Your task to perform on an android device: clear history in the chrome app Image 0: 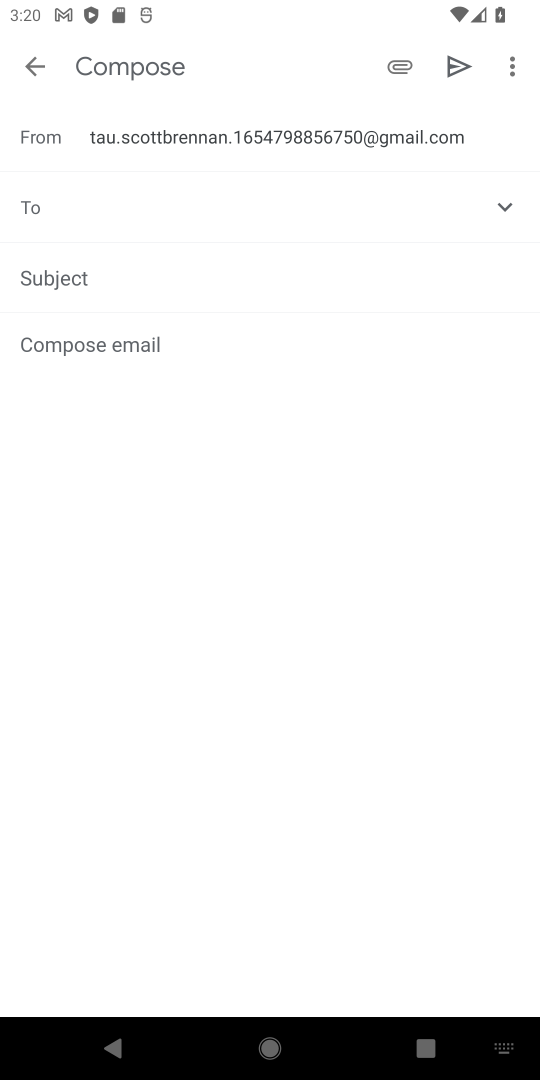
Step 0: press home button
Your task to perform on an android device: clear history in the chrome app Image 1: 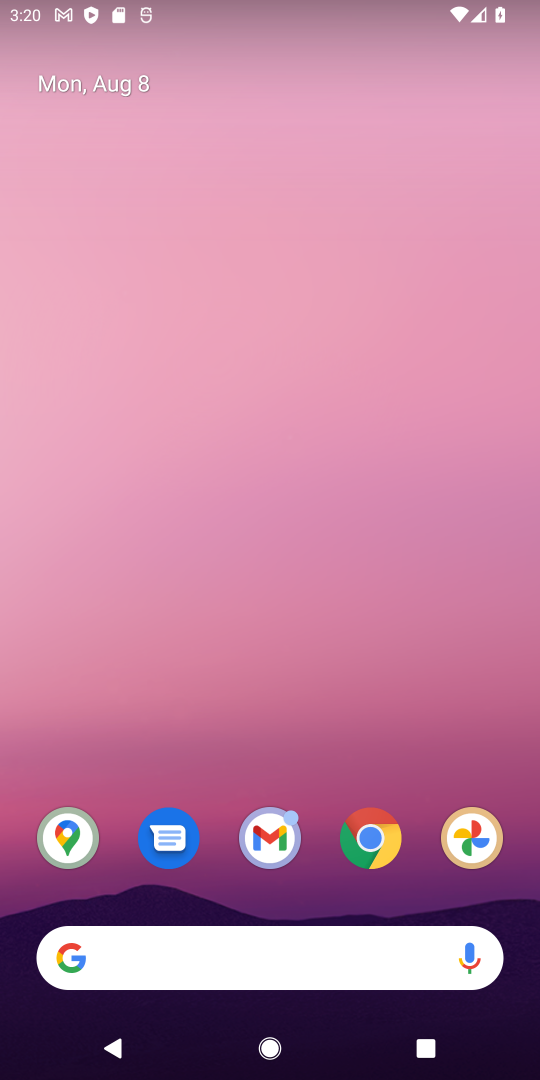
Step 1: click (372, 839)
Your task to perform on an android device: clear history in the chrome app Image 2: 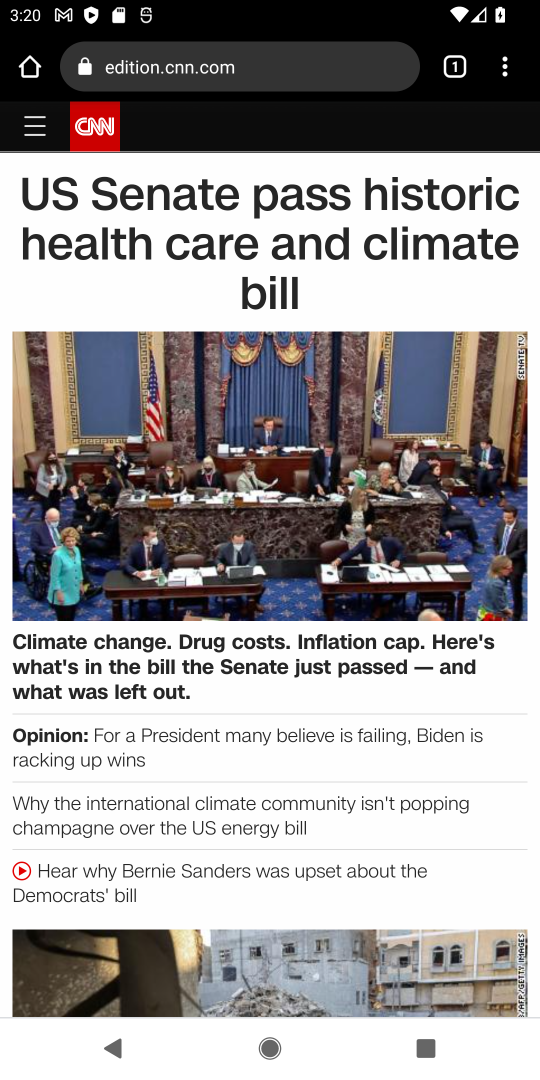
Step 2: click (506, 70)
Your task to perform on an android device: clear history in the chrome app Image 3: 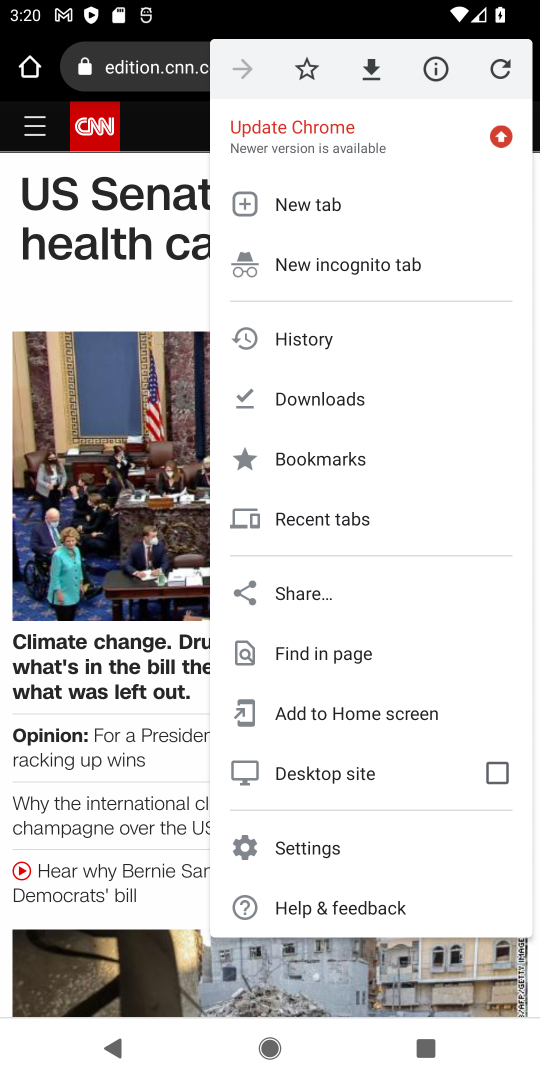
Step 3: click (313, 345)
Your task to perform on an android device: clear history in the chrome app Image 4: 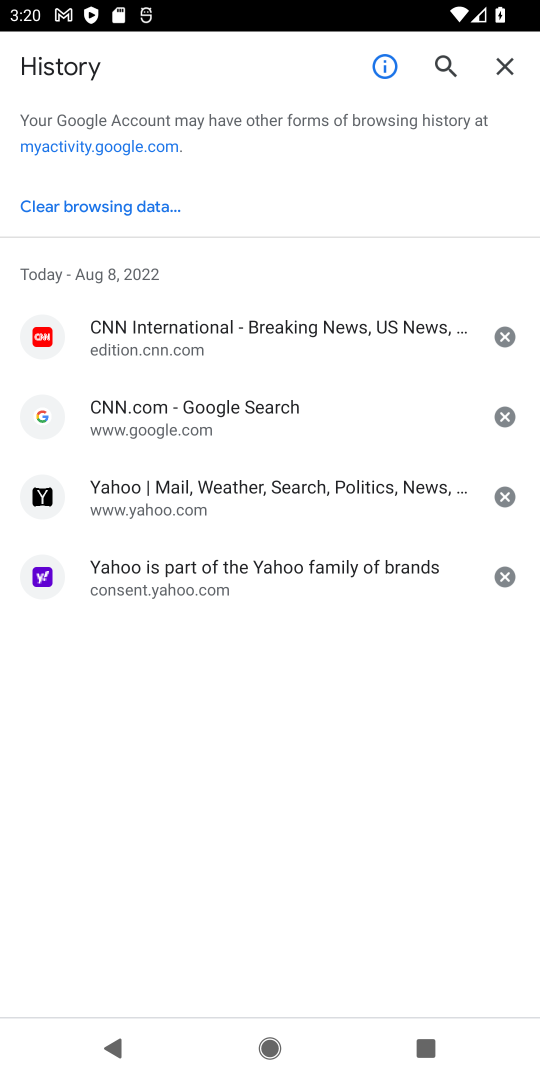
Step 4: click (161, 208)
Your task to perform on an android device: clear history in the chrome app Image 5: 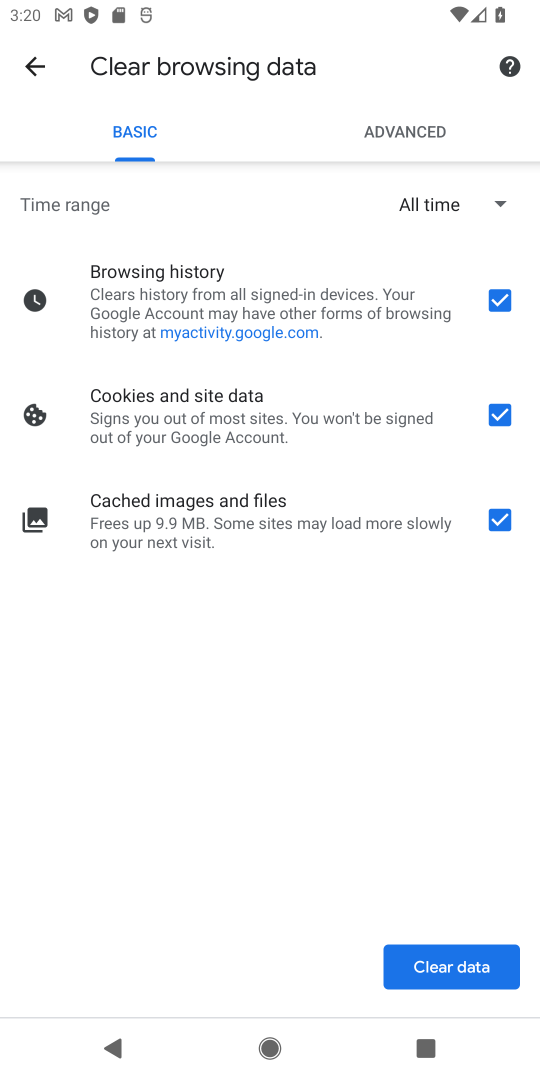
Step 5: click (450, 966)
Your task to perform on an android device: clear history in the chrome app Image 6: 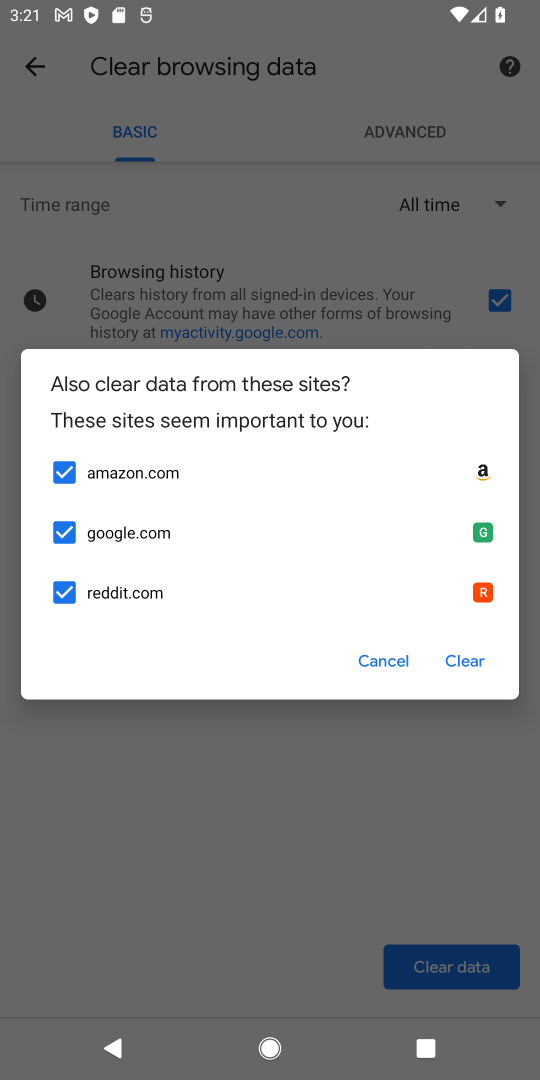
Step 6: click (472, 665)
Your task to perform on an android device: clear history in the chrome app Image 7: 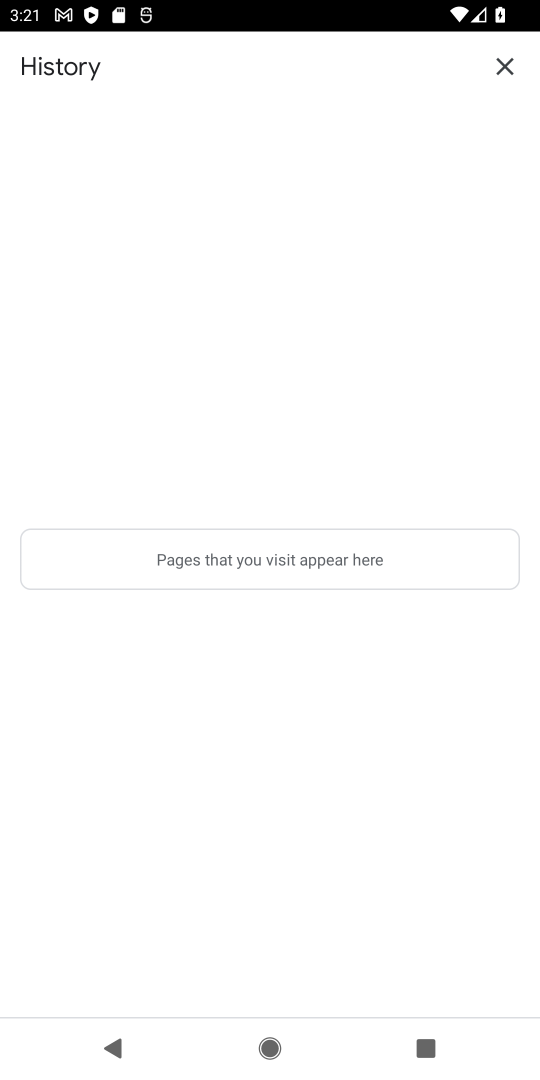
Step 7: task complete